Your task to perform on an android device: Open privacy settings Image 0: 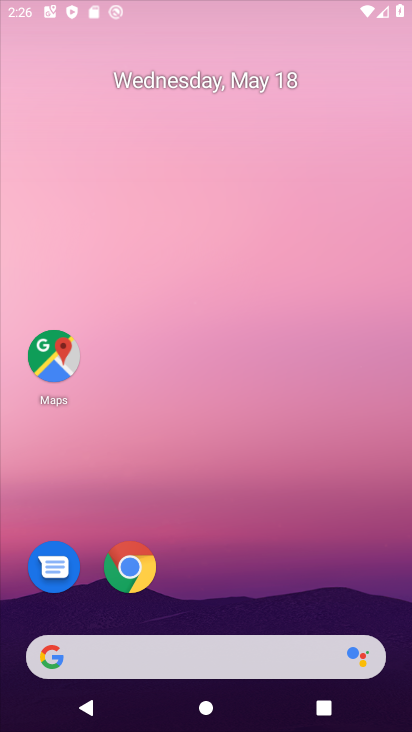
Step 0: drag from (225, 617) to (254, 129)
Your task to perform on an android device: Open privacy settings Image 1: 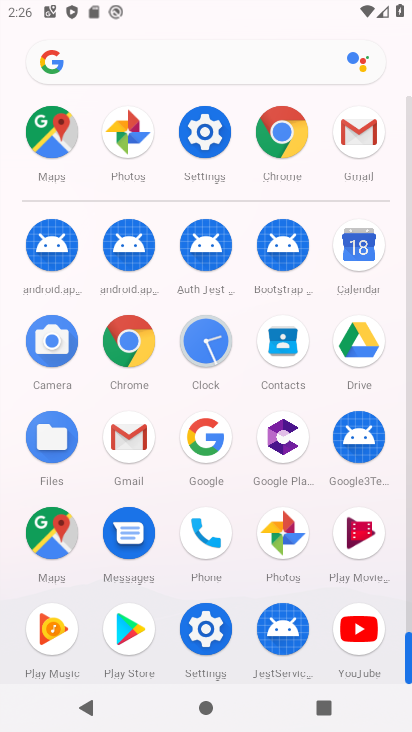
Step 1: click (191, 129)
Your task to perform on an android device: Open privacy settings Image 2: 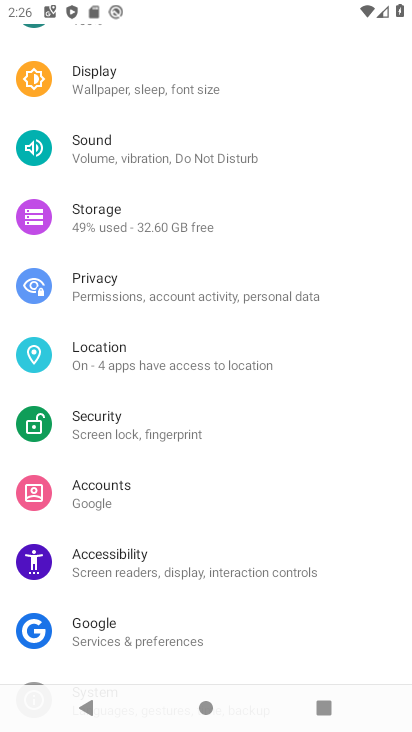
Step 2: click (143, 282)
Your task to perform on an android device: Open privacy settings Image 3: 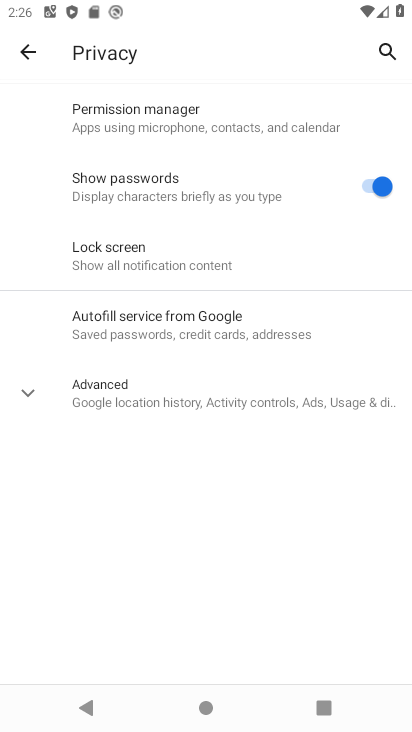
Step 3: task complete